Your task to perform on an android device: Open location settings Image 0: 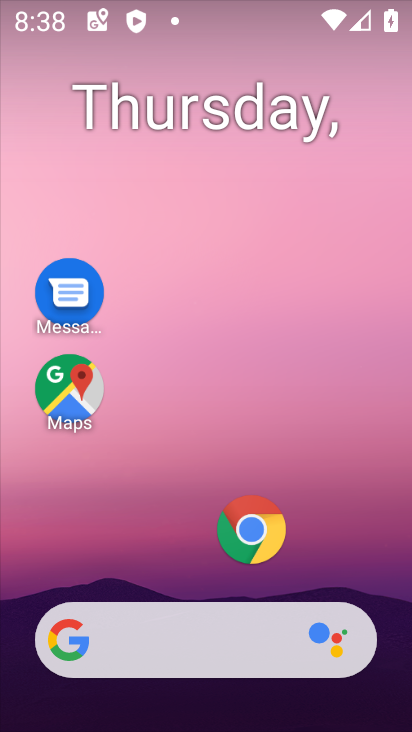
Step 0: drag from (163, 591) to (197, 130)
Your task to perform on an android device: Open location settings Image 1: 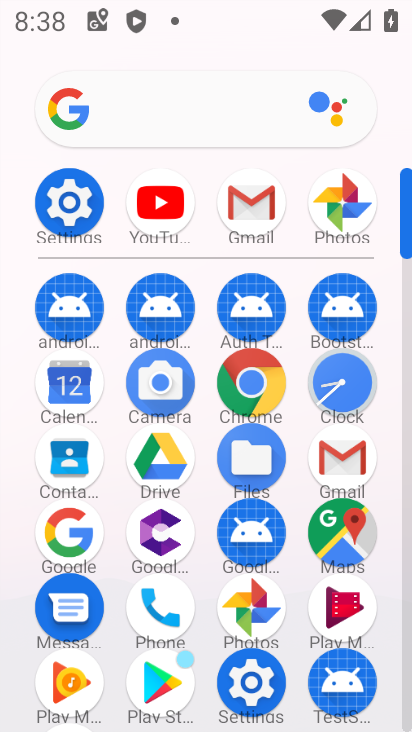
Step 1: click (60, 196)
Your task to perform on an android device: Open location settings Image 2: 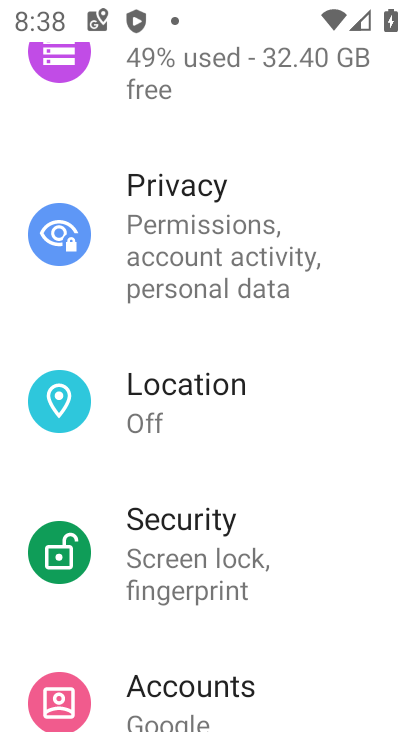
Step 2: click (202, 401)
Your task to perform on an android device: Open location settings Image 3: 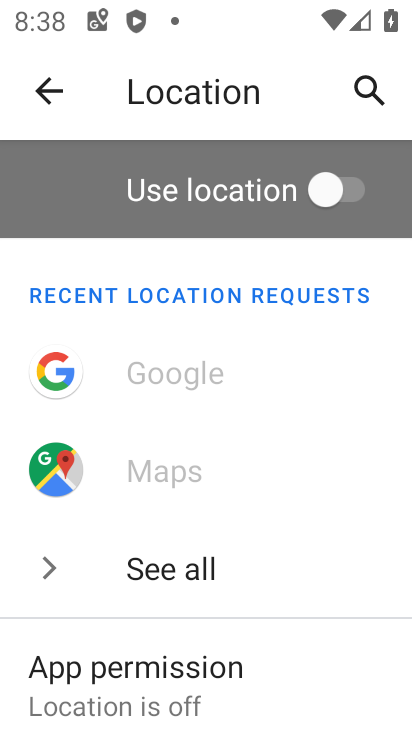
Step 3: task complete